Your task to perform on an android device: What is the news today? Image 0: 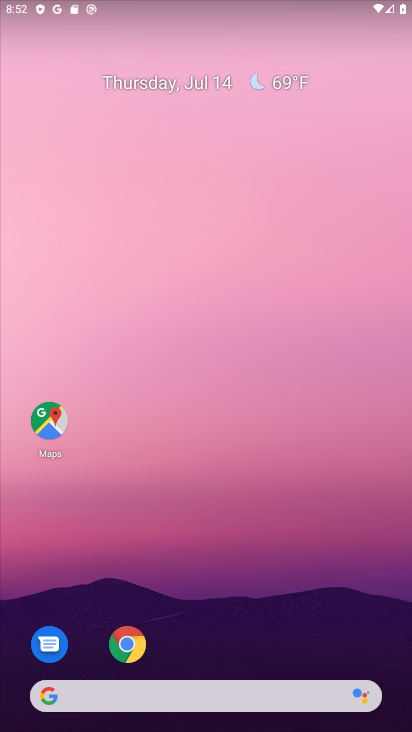
Step 0: click (156, 685)
Your task to perform on an android device: What is the news today? Image 1: 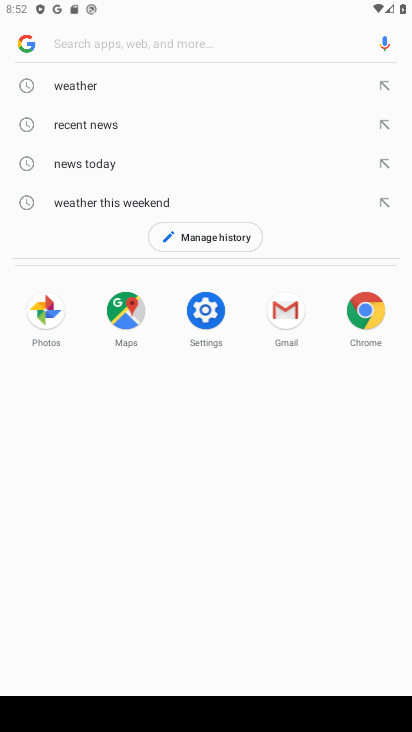
Step 1: click (157, 171)
Your task to perform on an android device: What is the news today? Image 2: 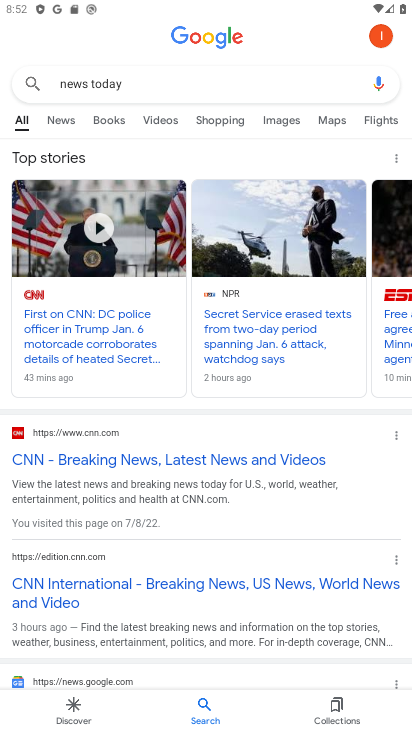
Step 2: task complete